Your task to perform on an android device: turn notification dots on Image 0: 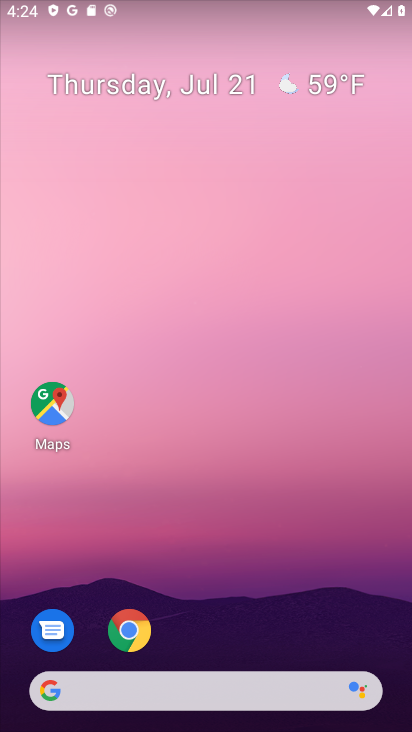
Step 0: click (242, 154)
Your task to perform on an android device: turn notification dots on Image 1: 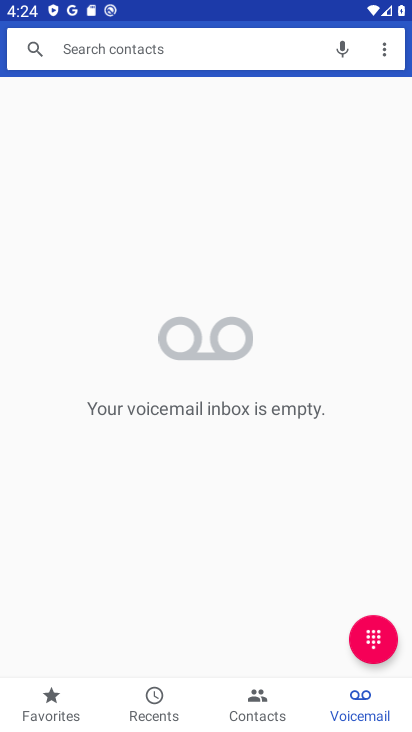
Step 1: press back button
Your task to perform on an android device: turn notification dots on Image 2: 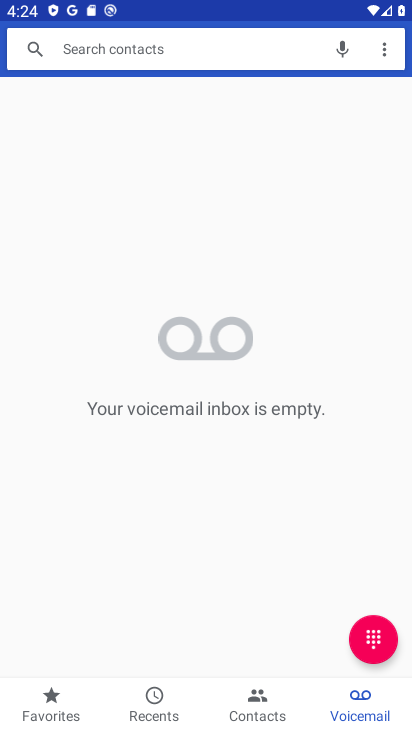
Step 2: press back button
Your task to perform on an android device: turn notification dots on Image 3: 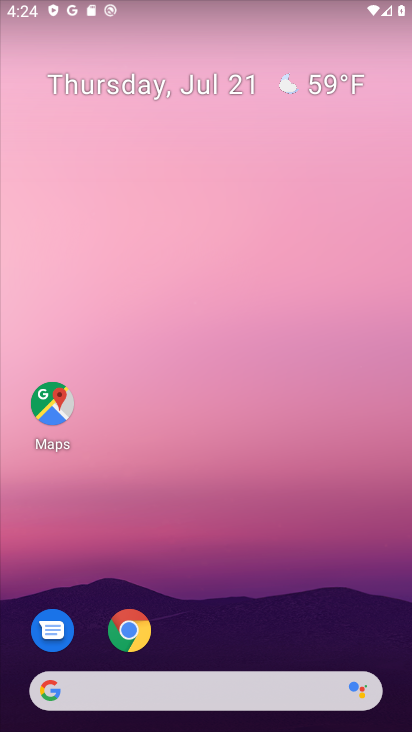
Step 3: drag from (188, 254) to (181, 85)
Your task to perform on an android device: turn notification dots on Image 4: 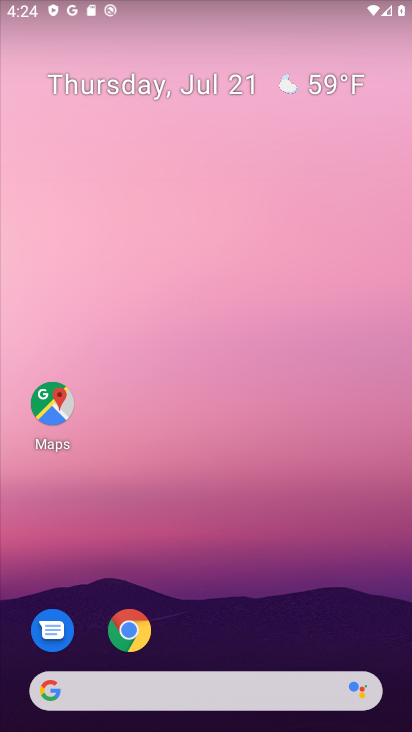
Step 4: drag from (199, 643) to (163, 120)
Your task to perform on an android device: turn notification dots on Image 5: 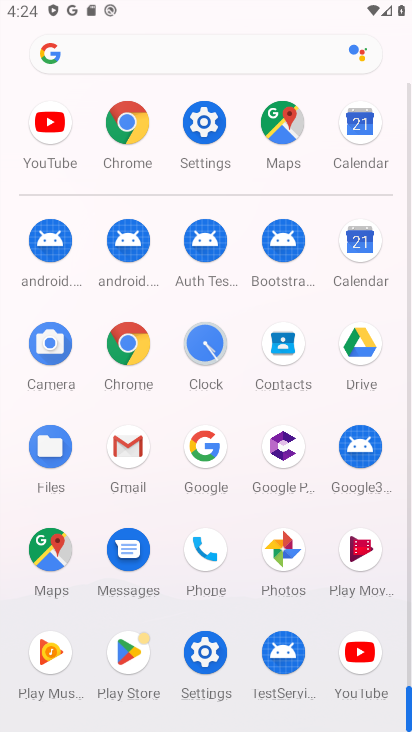
Step 5: click (193, 125)
Your task to perform on an android device: turn notification dots on Image 6: 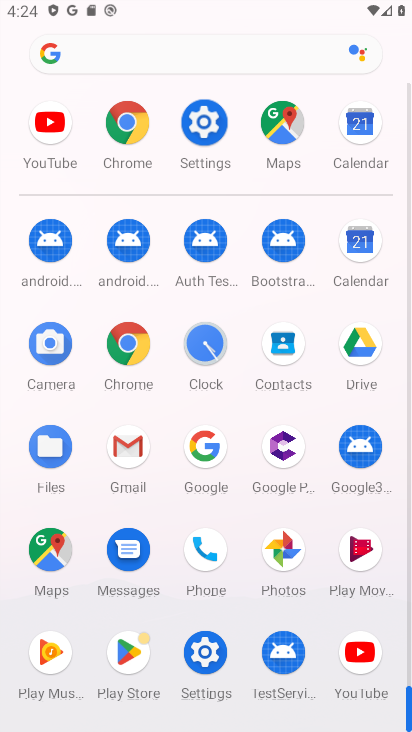
Step 6: click (198, 119)
Your task to perform on an android device: turn notification dots on Image 7: 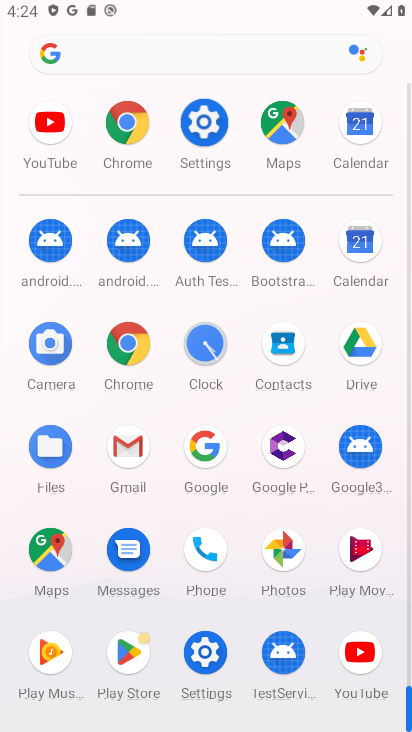
Step 7: click (198, 119)
Your task to perform on an android device: turn notification dots on Image 8: 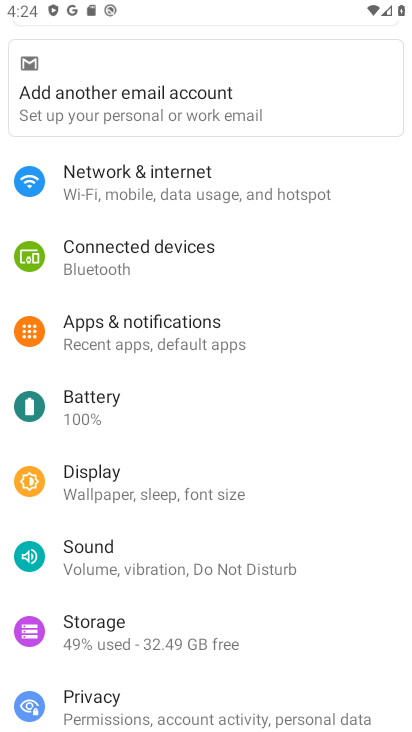
Step 8: click (151, 328)
Your task to perform on an android device: turn notification dots on Image 9: 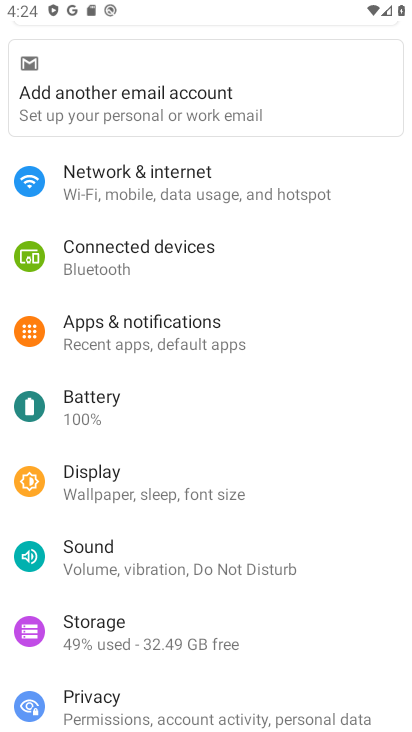
Step 9: click (151, 328)
Your task to perform on an android device: turn notification dots on Image 10: 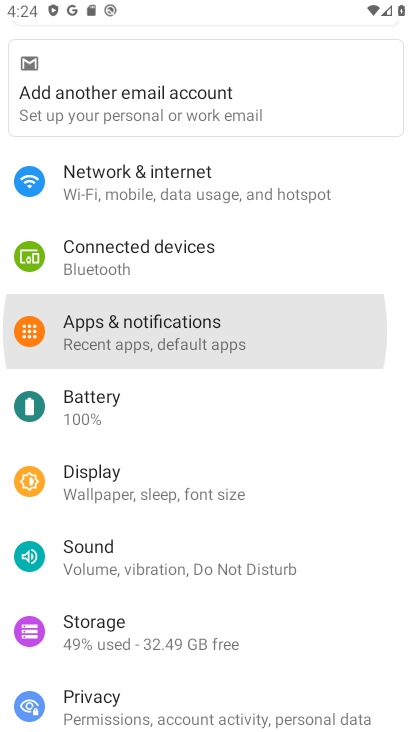
Step 10: click (151, 328)
Your task to perform on an android device: turn notification dots on Image 11: 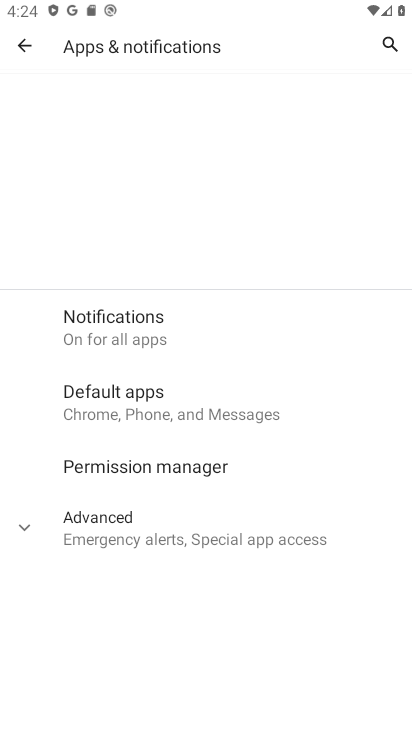
Step 11: click (107, 330)
Your task to perform on an android device: turn notification dots on Image 12: 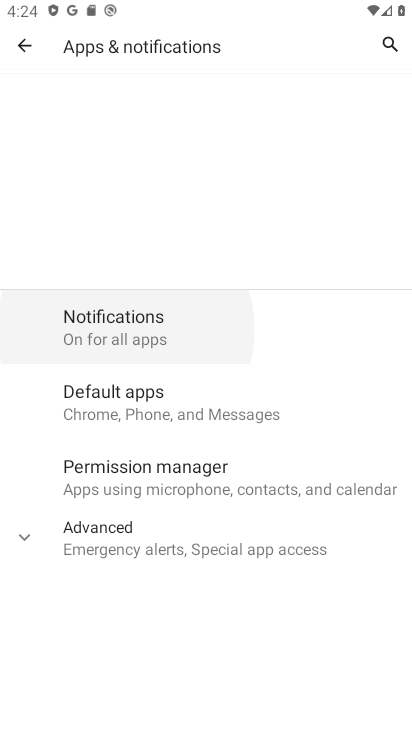
Step 12: click (112, 331)
Your task to perform on an android device: turn notification dots on Image 13: 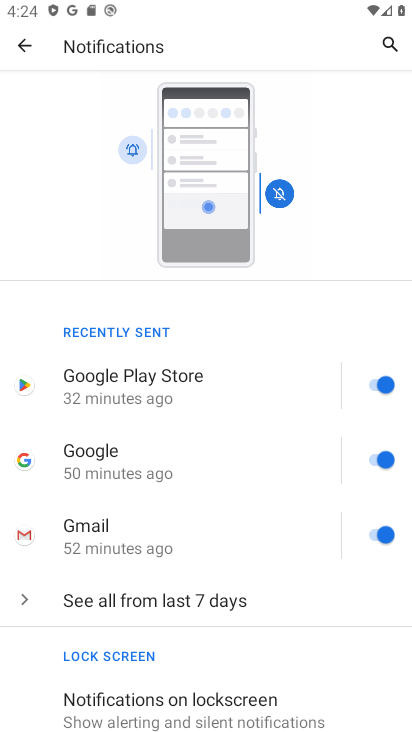
Step 13: click (196, 272)
Your task to perform on an android device: turn notification dots on Image 14: 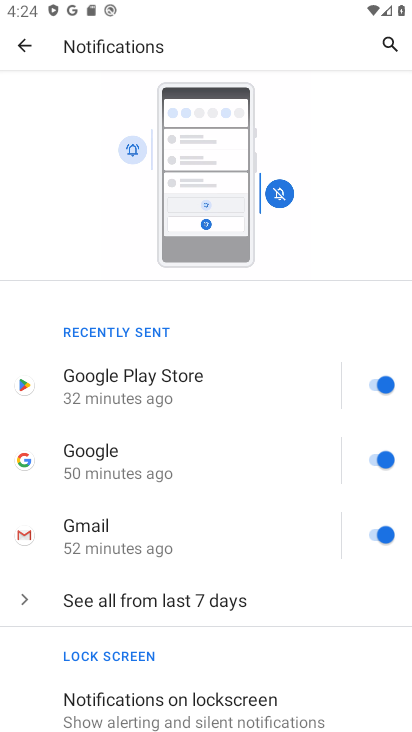
Step 14: drag from (196, 443) to (196, 196)
Your task to perform on an android device: turn notification dots on Image 15: 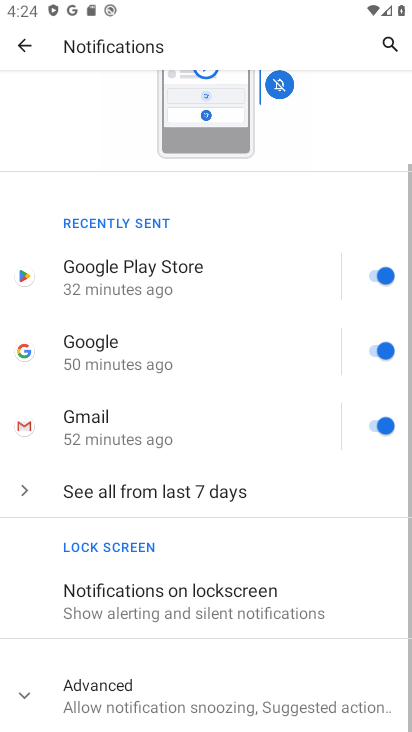
Step 15: drag from (199, 427) to (235, 226)
Your task to perform on an android device: turn notification dots on Image 16: 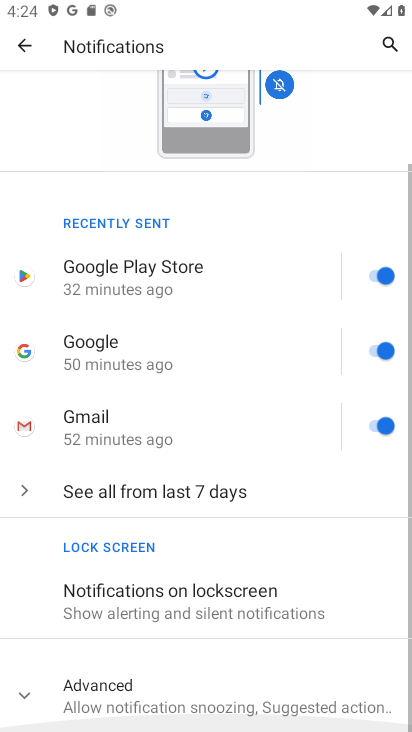
Step 16: drag from (242, 546) to (236, 216)
Your task to perform on an android device: turn notification dots on Image 17: 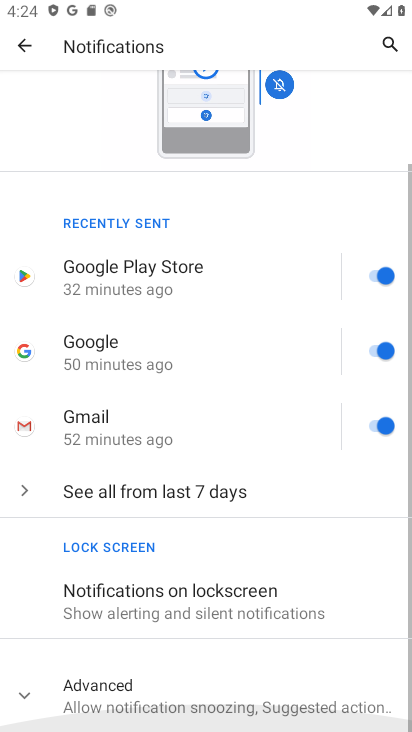
Step 17: drag from (248, 455) to (249, 259)
Your task to perform on an android device: turn notification dots on Image 18: 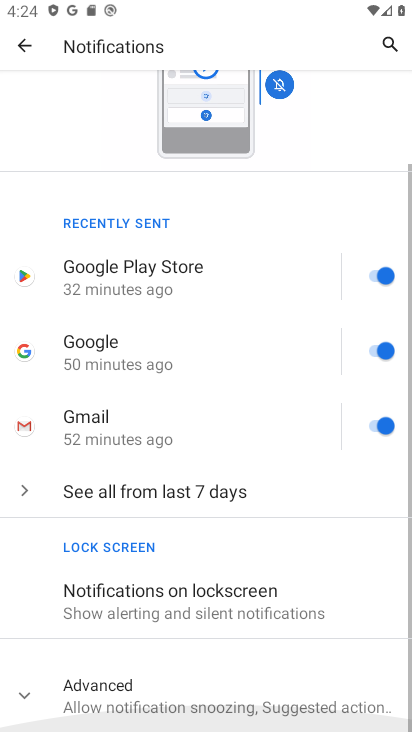
Step 18: drag from (237, 525) to (212, 350)
Your task to perform on an android device: turn notification dots on Image 19: 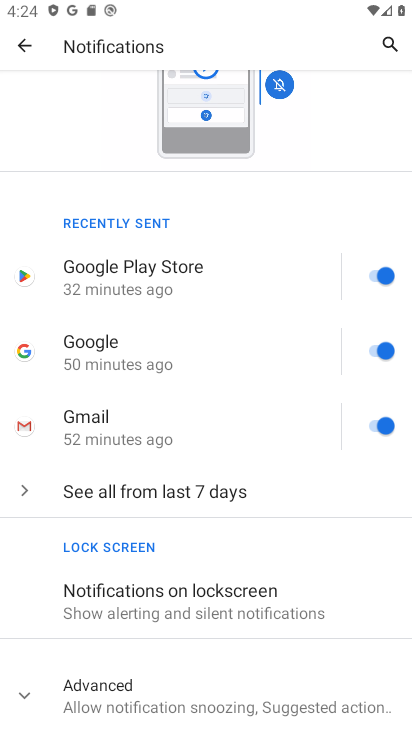
Step 19: click (120, 696)
Your task to perform on an android device: turn notification dots on Image 20: 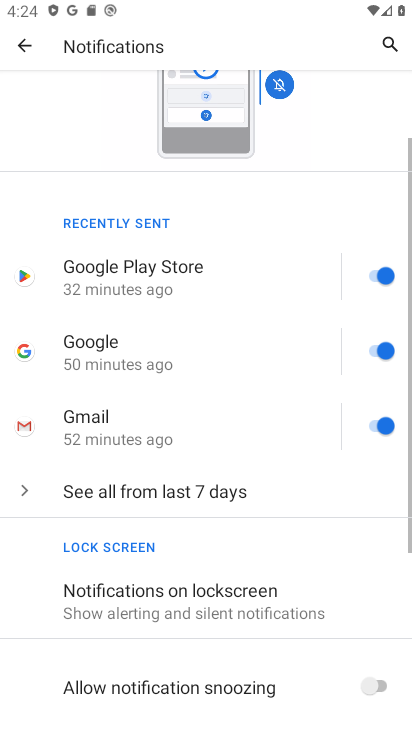
Step 20: task complete